Your task to perform on an android device: Go to Yahoo.com Image 0: 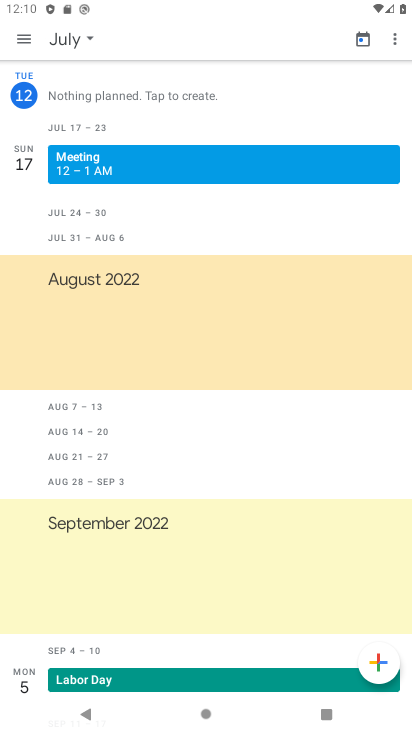
Step 0: press home button
Your task to perform on an android device: Go to Yahoo.com Image 1: 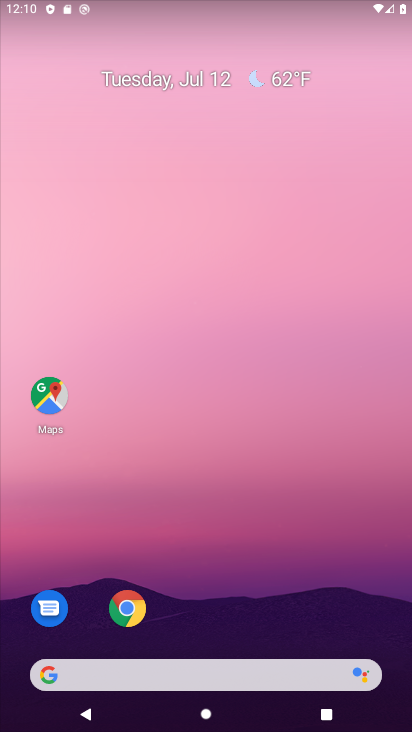
Step 1: drag from (243, 559) to (310, 2)
Your task to perform on an android device: Go to Yahoo.com Image 2: 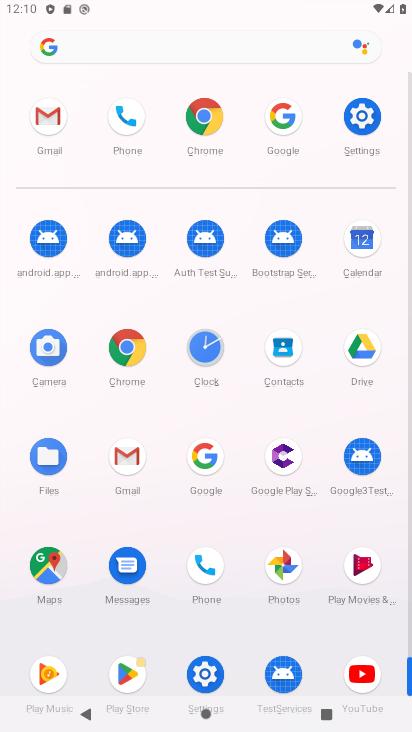
Step 2: click (194, 116)
Your task to perform on an android device: Go to Yahoo.com Image 3: 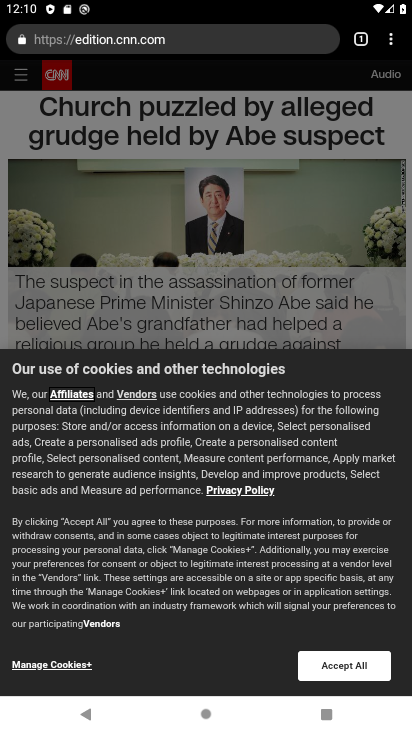
Step 3: press back button
Your task to perform on an android device: Go to Yahoo.com Image 4: 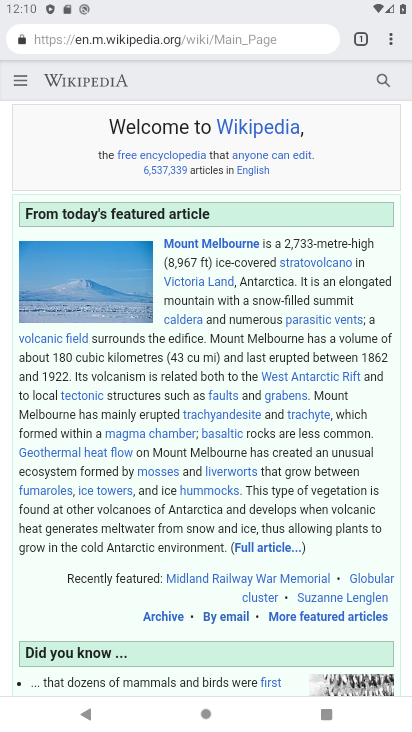
Step 4: press back button
Your task to perform on an android device: Go to Yahoo.com Image 5: 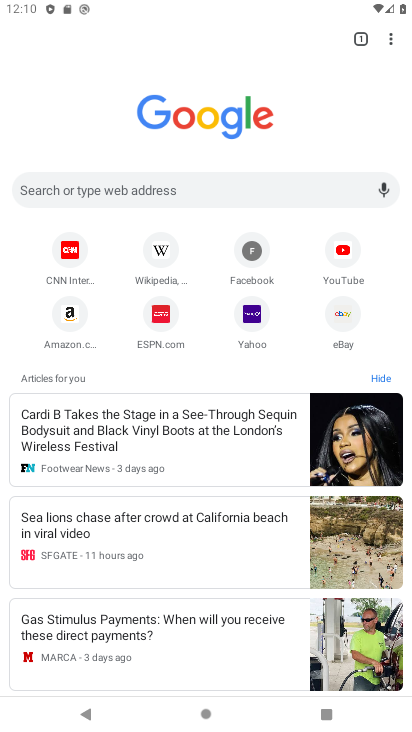
Step 5: click (247, 319)
Your task to perform on an android device: Go to Yahoo.com Image 6: 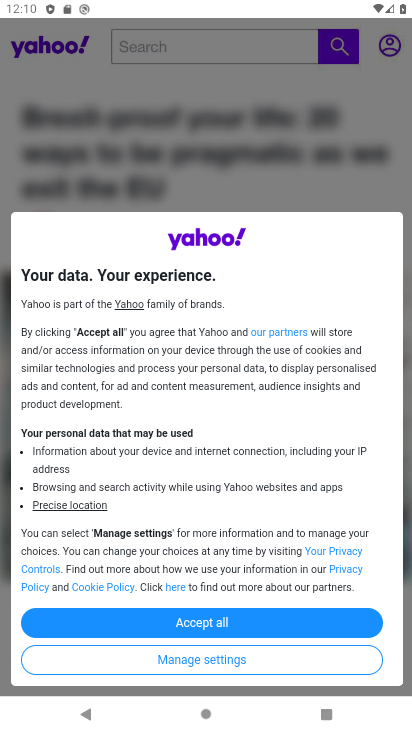
Step 6: task complete